Your task to perform on an android device: Turn on the flashlight Image 0: 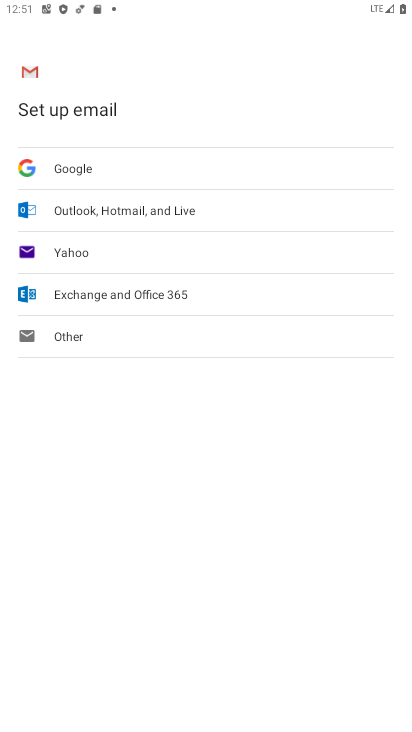
Step 0: press home button
Your task to perform on an android device: Turn on the flashlight Image 1: 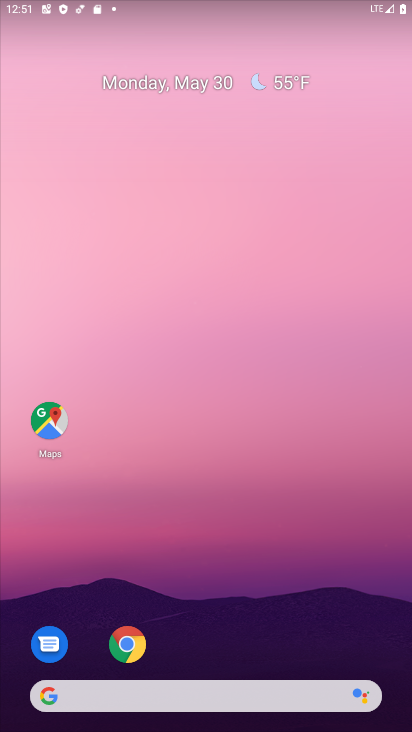
Step 1: drag from (254, 640) to (256, 275)
Your task to perform on an android device: Turn on the flashlight Image 2: 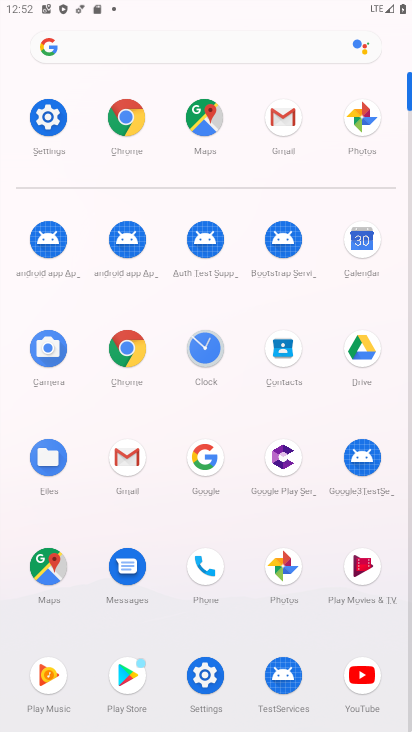
Step 2: click (62, 142)
Your task to perform on an android device: Turn on the flashlight Image 3: 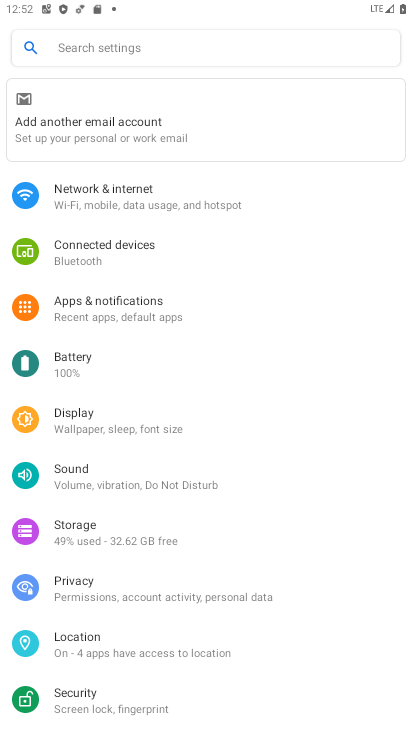
Step 3: click (70, 175)
Your task to perform on an android device: Turn on the flashlight Image 4: 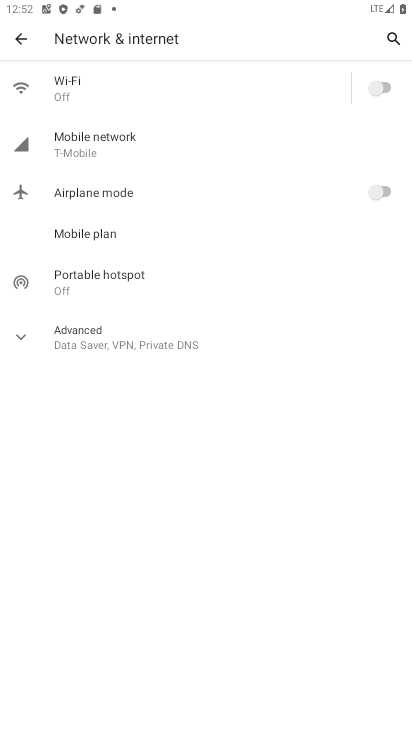
Step 4: task complete